Your task to perform on an android device: turn on airplane mode Image 0: 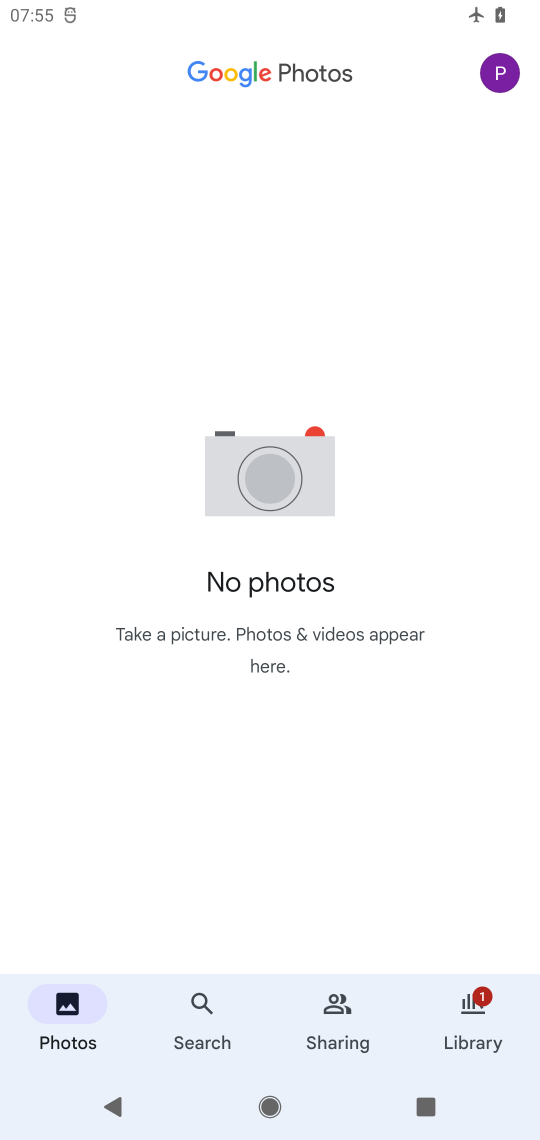
Step 0: press home button
Your task to perform on an android device: turn on airplane mode Image 1: 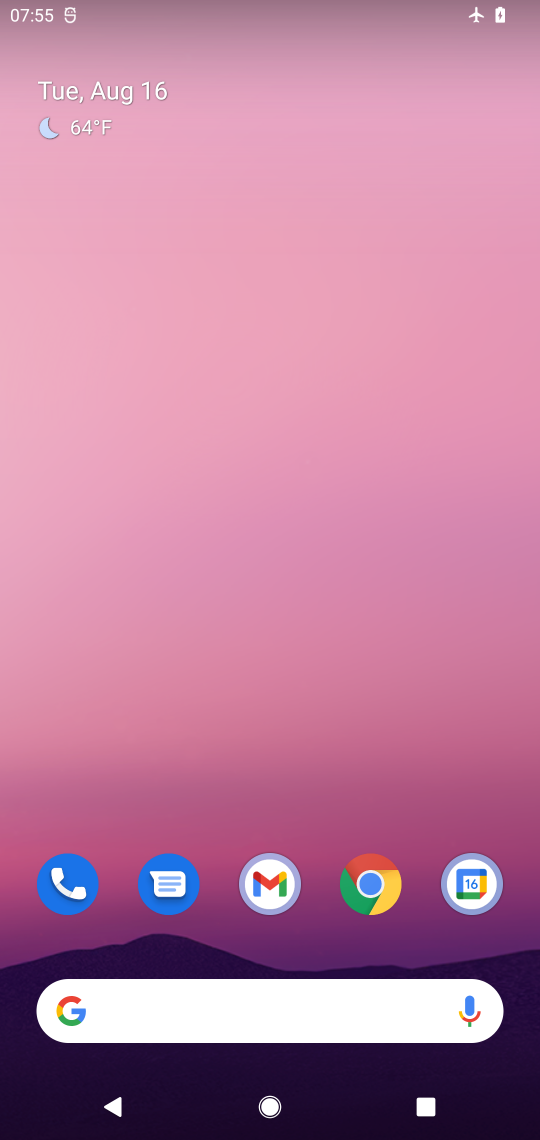
Step 1: drag from (354, 782) to (279, 92)
Your task to perform on an android device: turn on airplane mode Image 2: 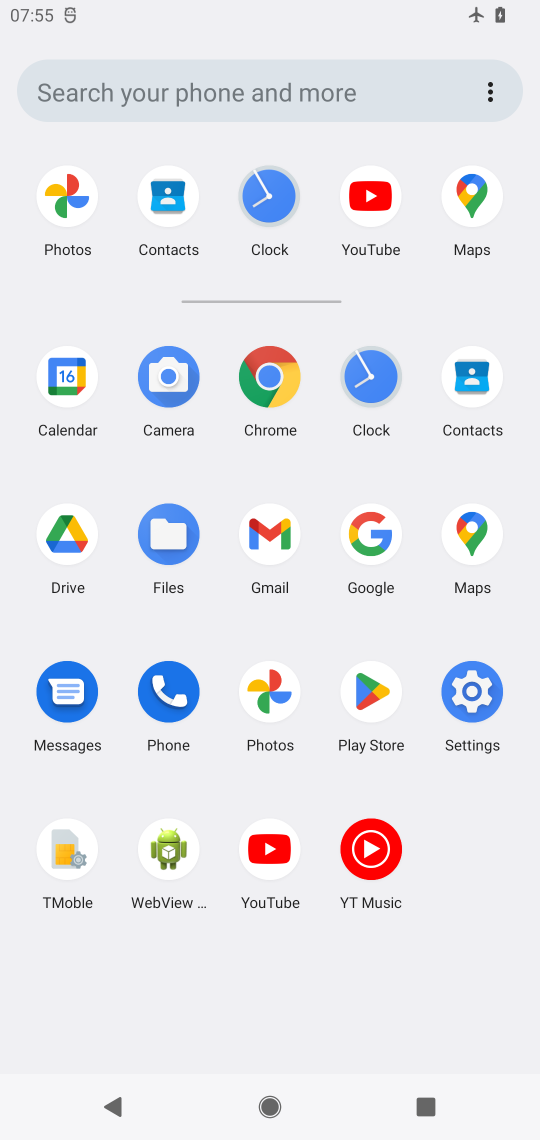
Step 2: click (481, 689)
Your task to perform on an android device: turn on airplane mode Image 3: 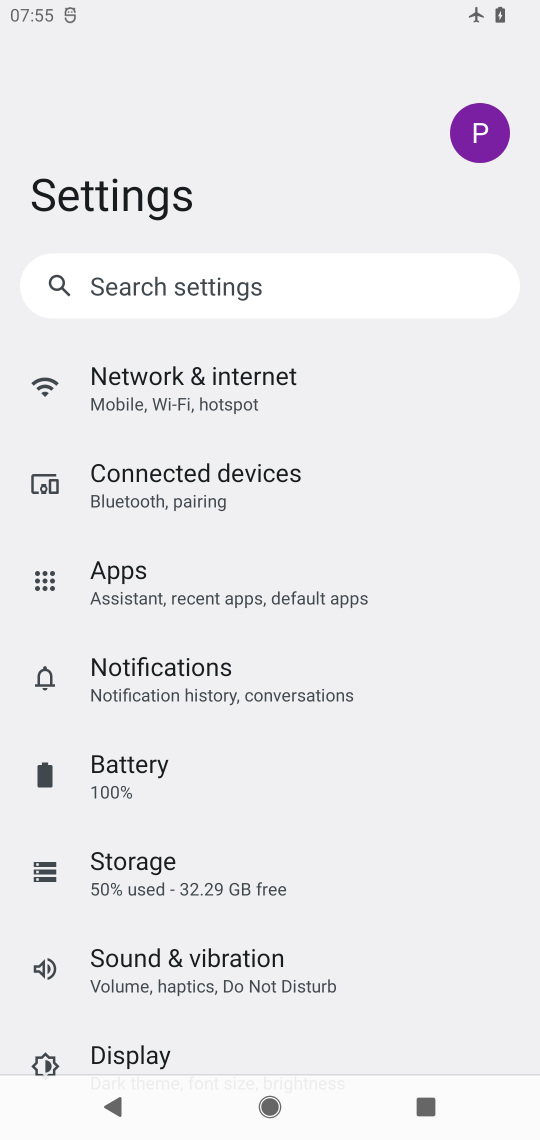
Step 3: click (169, 394)
Your task to perform on an android device: turn on airplane mode Image 4: 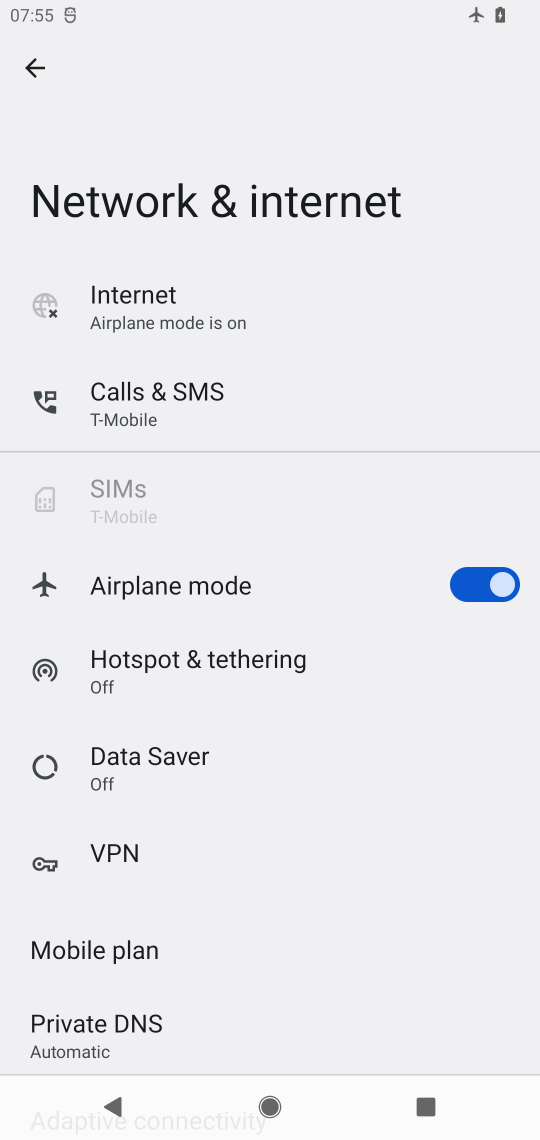
Step 4: task complete